Your task to perform on an android device: turn off translation in the chrome app Image 0: 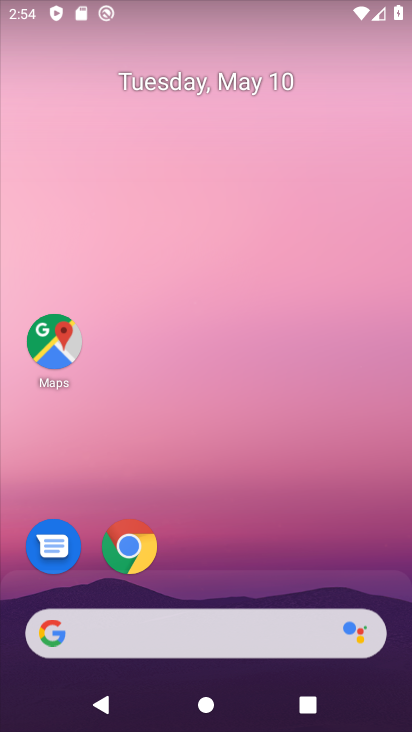
Step 0: click (127, 554)
Your task to perform on an android device: turn off translation in the chrome app Image 1: 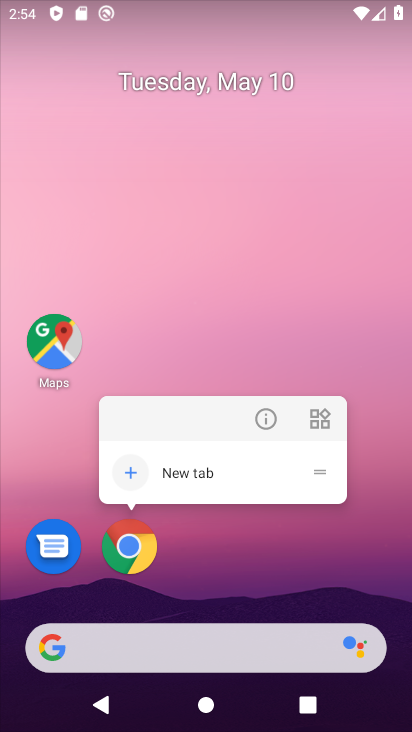
Step 1: click (142, 560)
Your task to perform on an android device: turn off translation in the chrome app Image 2: 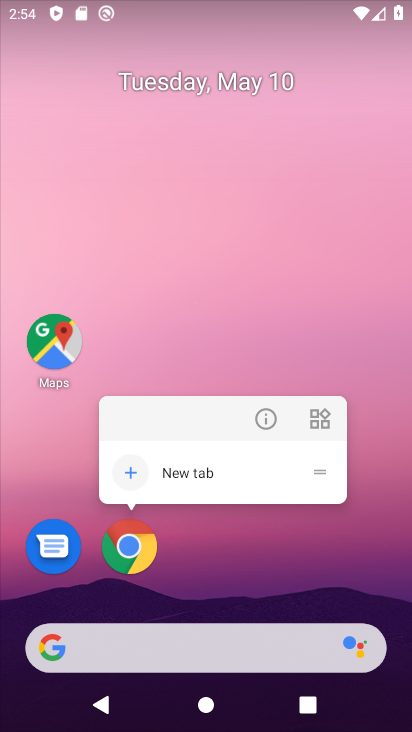
Step 2: click (149, 547)
Your task to perform on an android device: turn off translation in the chrome app Image 3: 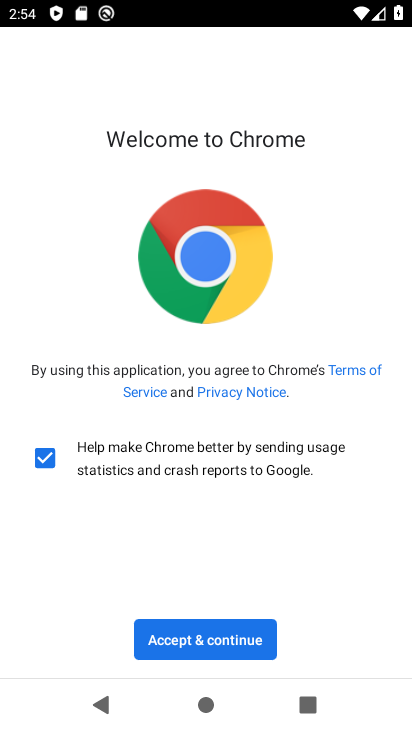
Step 3: click (250, 641)
Your task to perform on an android device: turn off translation in the chrome app Image 4: 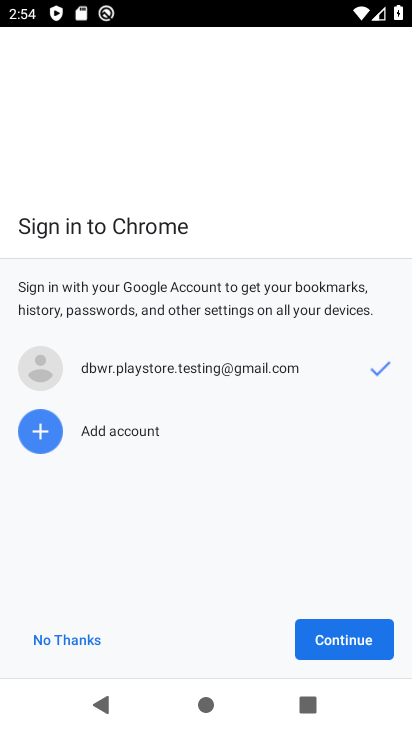
Step 4: click (336, 638)
Your task to perform on an android device: turn off translation in the chrome app Image 5: 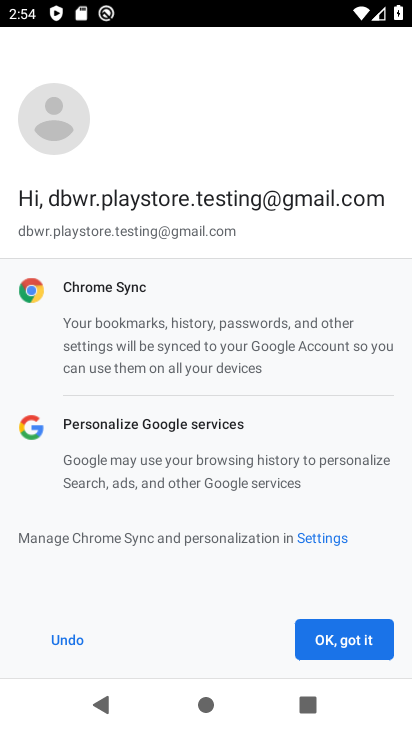
Step 5: click (347, 638)
Your task to perform on an android device: turn off translation in the chrome app Image 6: 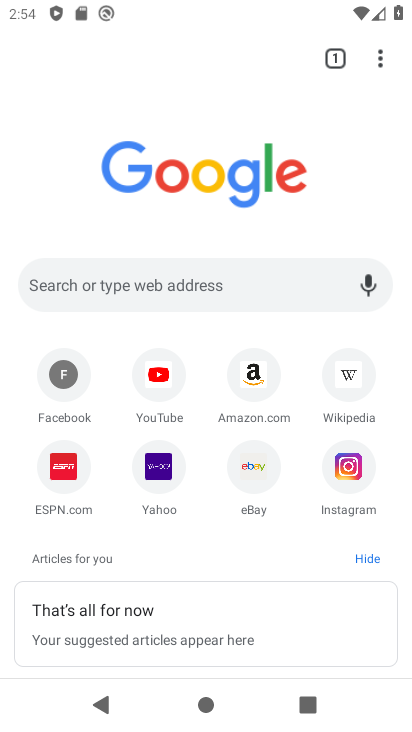
Step 6: drag from (392, 54) to (276, 484)
Your task to perform on an android device: turn off translation in the chrome app Image 7: 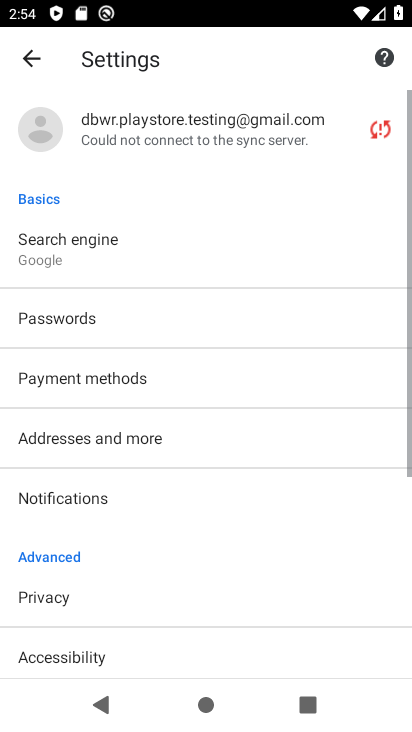
Step 7: drag from (153, 610) to (269, 153)
Your task to perform on an android device: turn off translation in the chrome app Image 8: 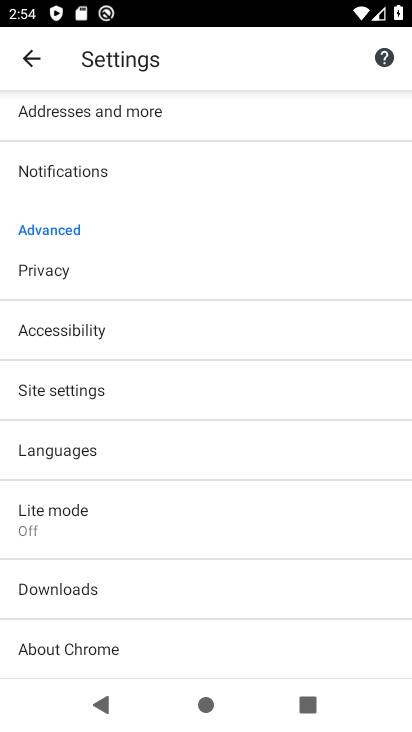
Step 8: click (148, 457)
Your task to perform on an android device: turn off translation in the chrome app Image 9: 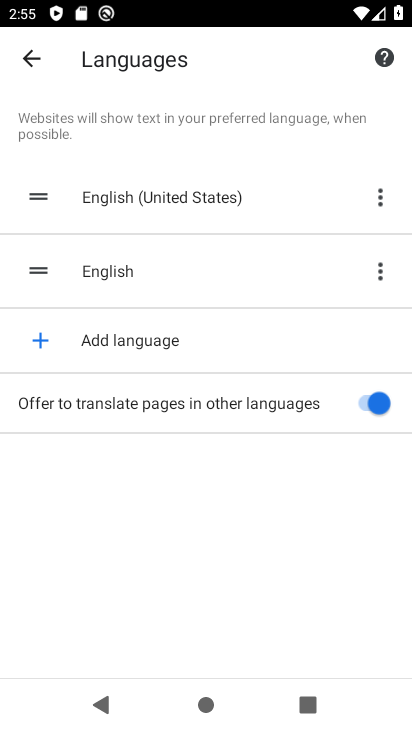
Step 9: click (372, 403)
Your task to perform on an android device: turn off translation in the chrome app Image 10: 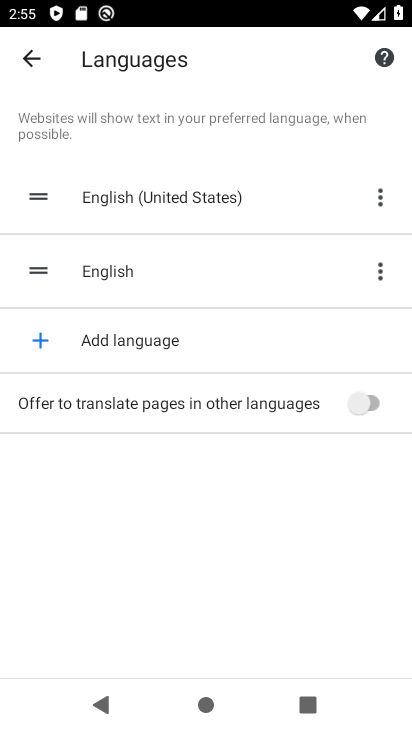
Step 10: task complete